Your task to perform on an android device: Open my contact list Image 0: 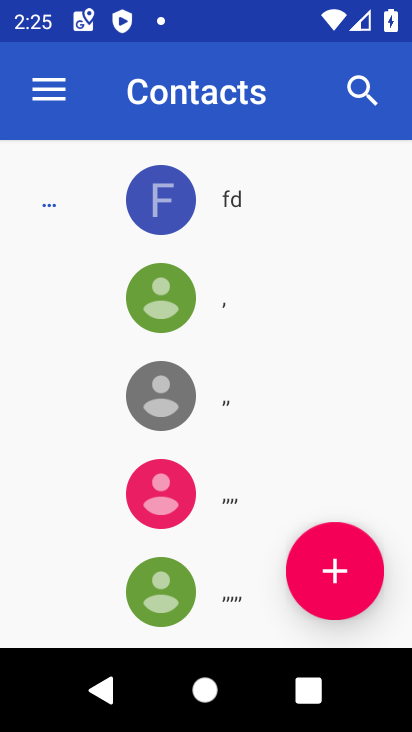
Step 0: drag from (181, 579) to (163, 111)
Your task to perform on an android device: Open my contact list Image 1: 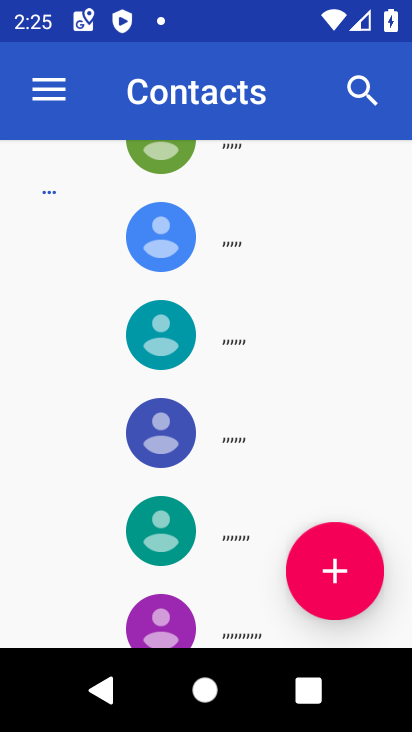
Step 1: task complete